Your task to perform on an android device: change the clock display to digital Image 0: 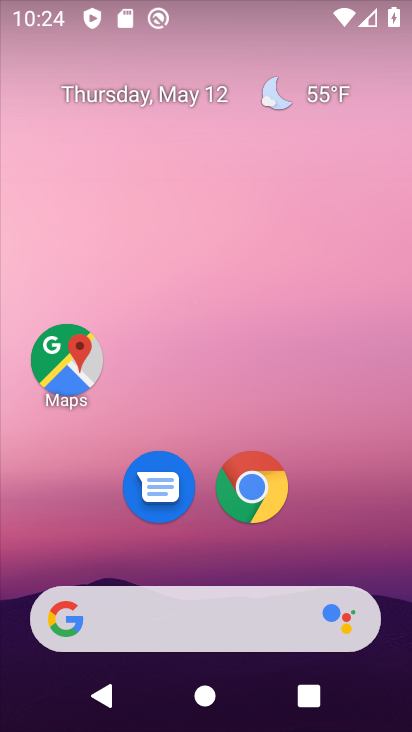
Step 0: drag from (367, 533) to (318, 1)
Your task to perform on an android device: change the clock display to digital Image 1: 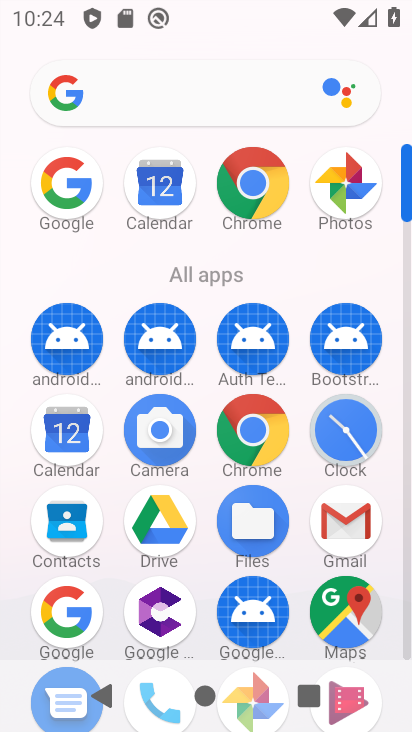
Step 1: click (338, 432)
Your task to perform on an android device: change the clock display to digital Image 2: 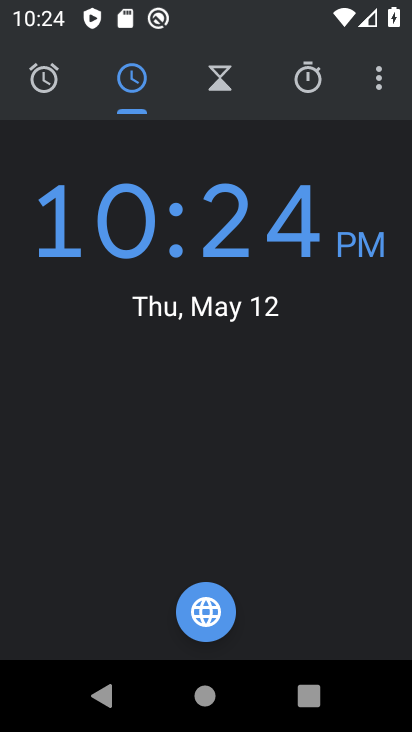
Step 2: click (379, 79)
Your task to perform on an android device: change the clock display to digital Image 3: 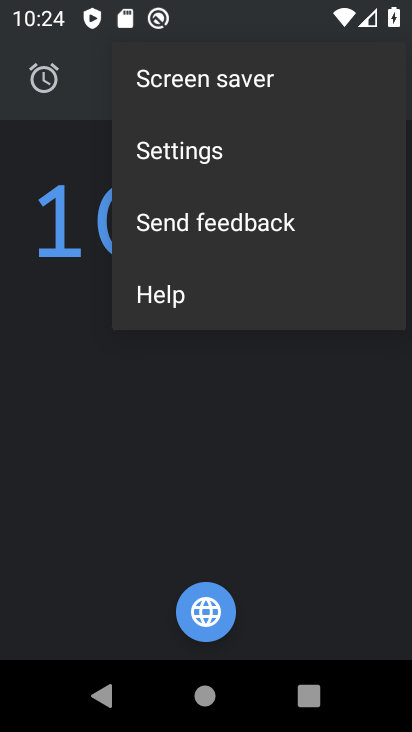
Step 3: click (188, 153)
Your task to perform on an android device: change the clock display to digital Image 4: 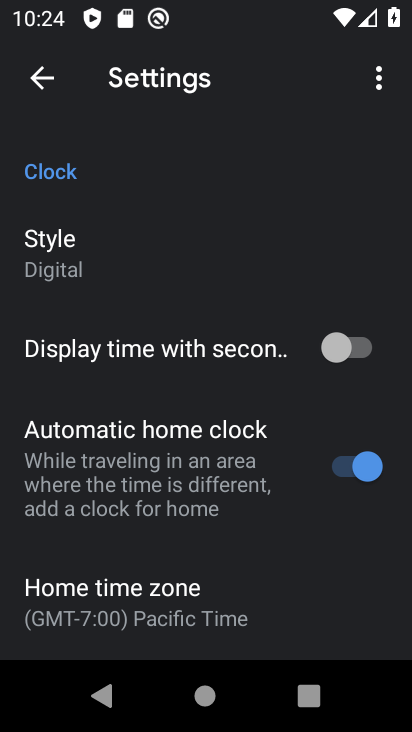
Step 4: task complete